Your task to perform on an android device: all mails in gmail Image 0: 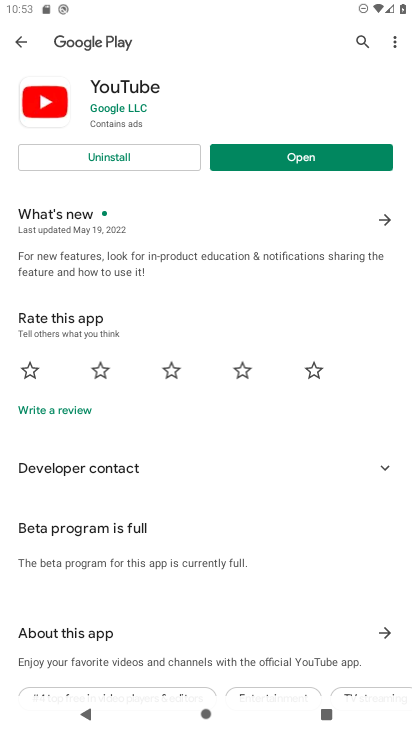
Step 0: press home button
Your task to perform on an android device: all mails in gmail Image 1: 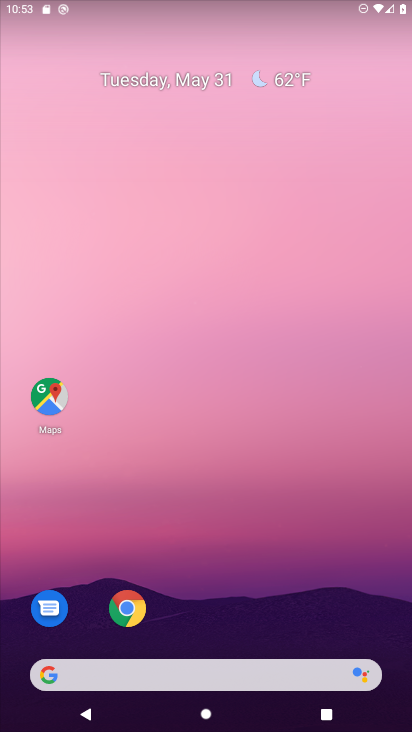
Step 1: drag from (347, 537) to (336, 182)
Your task to perform on an android device: all mails in gmail Image 2: 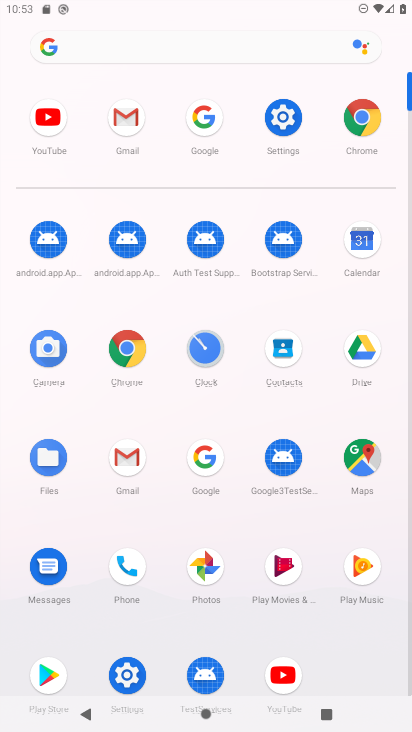
Step 2: click (134, 459)
Your task to perform on an android device: all mails in gmail Image 3: 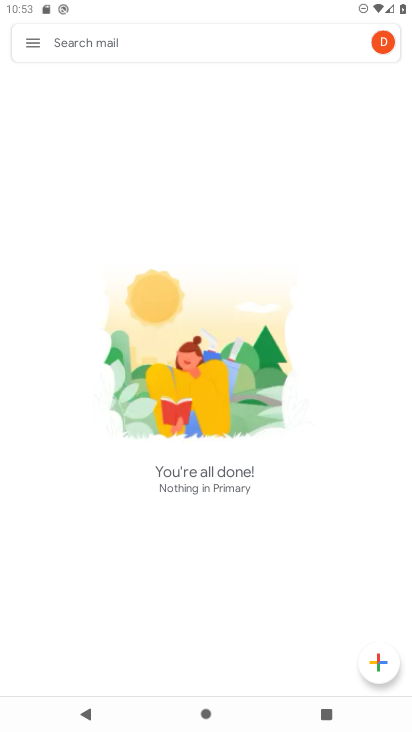
Step 3: click (42, 47)
Your task to perform on an android device: all mails in gmail Image 4: 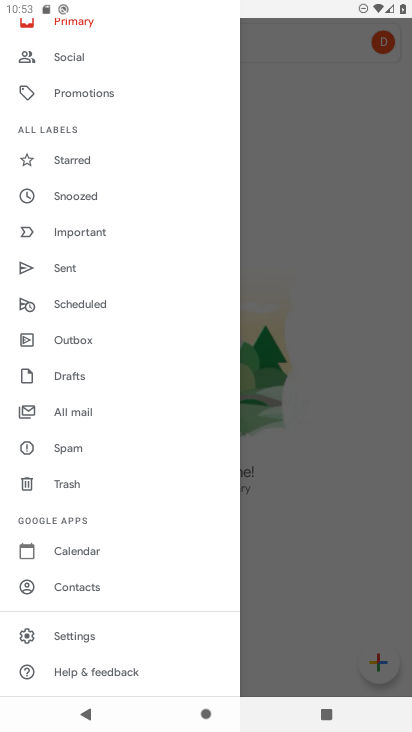
Step 4: drag from (132, 596) to (149, 384)
Your task to perform on an android device: all mails in gmail Image 5: 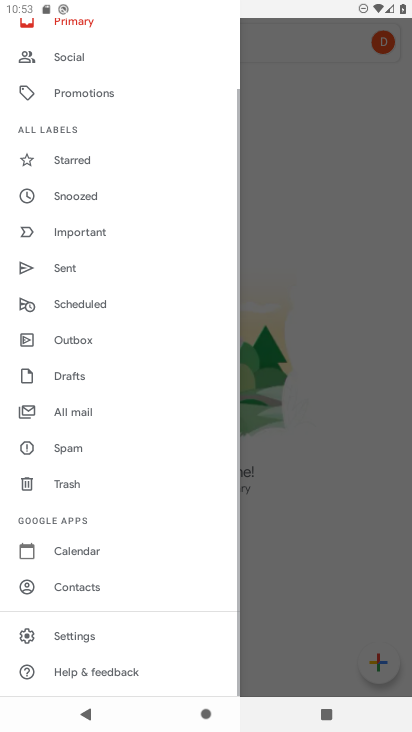
Step 5: click (111, 415)
Your task to perform on an android device: all mails in gmail Image 6: 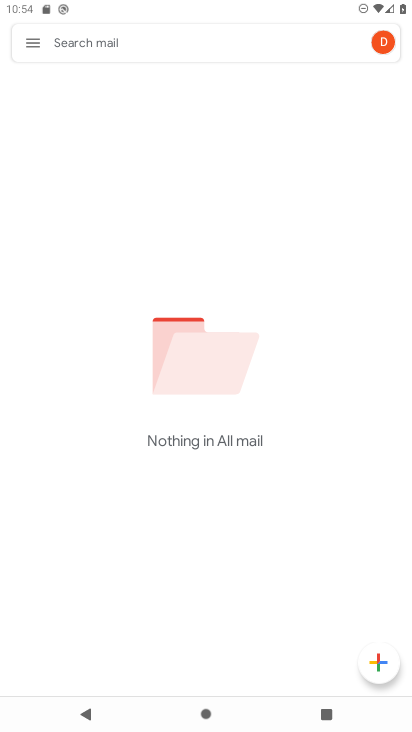
Step 6: task complete